Your task to perform on an android device: Open Yahoo.com Image 0: 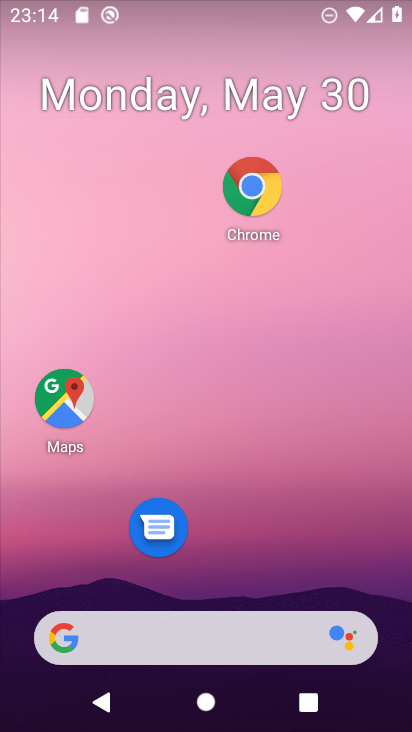
Step 0: click (259, 177)
Your task to perform on an android device: Open Yahoo.com Image 1: 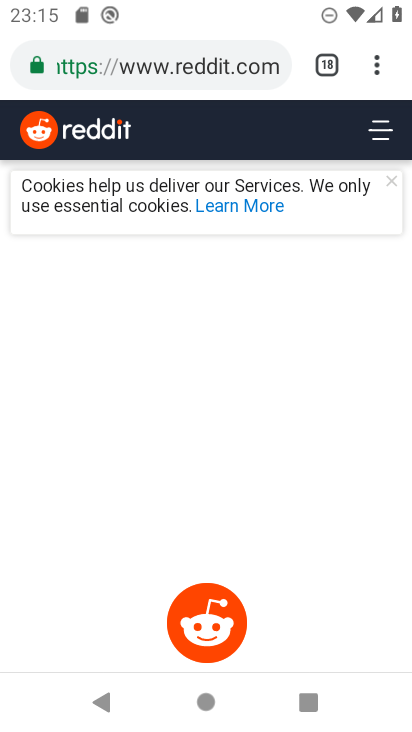
Step 1: click (379, 67)
Your task to perform on an android device: Open Yahoo.com Image 2: 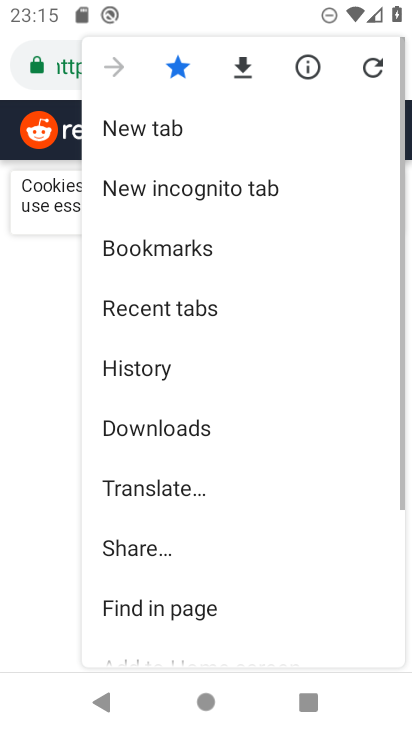
Step 2: click (166, 119)
Your task to perform on an android device: Open Yahoo.com Image 3: 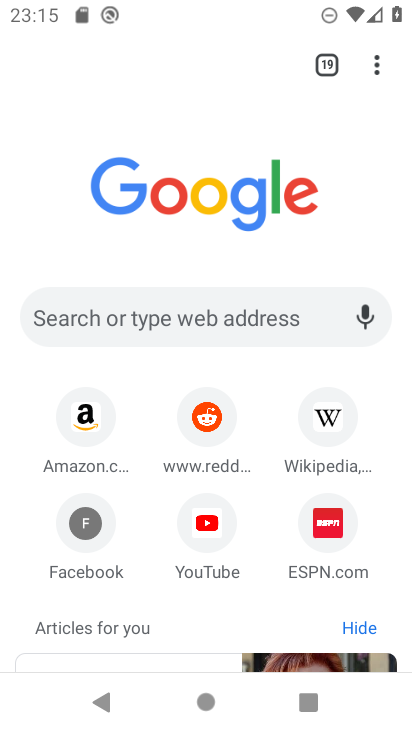
Step 3: click (227, 316)
Your task to perform on an android device: Open Yahoo.com Image 4: 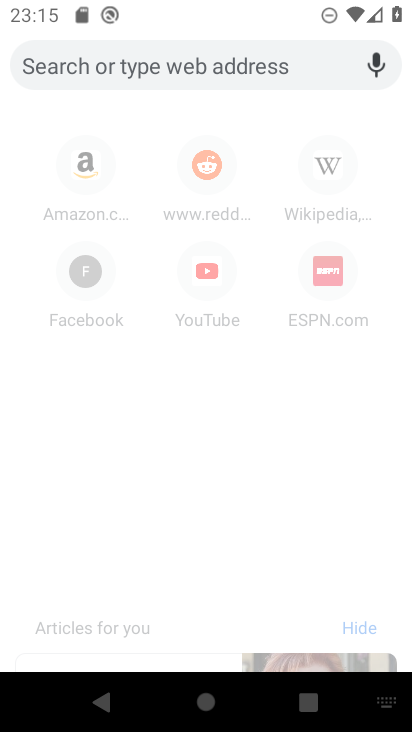
Step 4: click (186, 53)
Your task to perform on an android device: Open Yahoo.com Image 5: 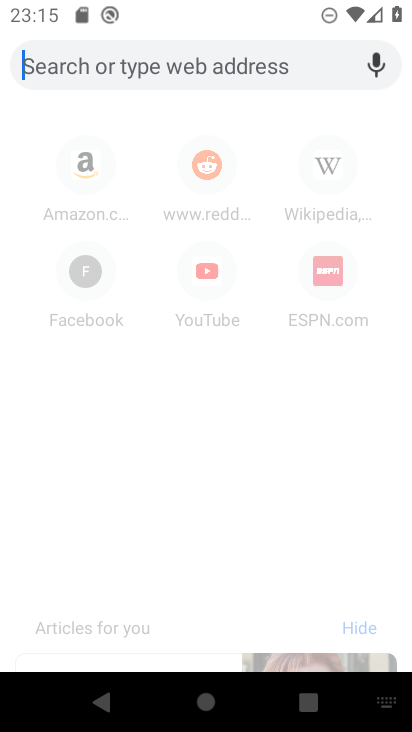
Step 5: type " Yahoo.com"
Your task to perform on an android device: Open Yahoo.com Image 6: 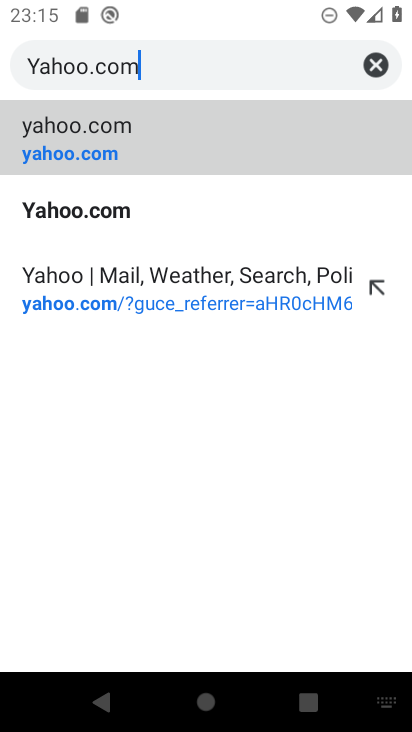
Step 6: click (119, 145)
Your task to perform on an android device: Open Yahoo.com Image 7: 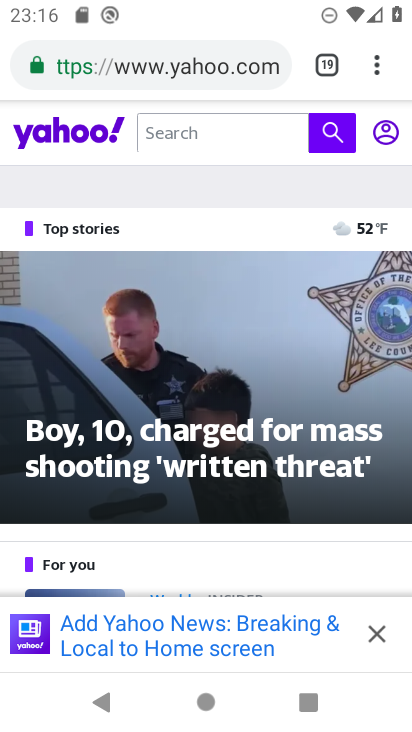
Step 7: task complete